Your task to perform on an android device: find photos in the google photos app Image 0: 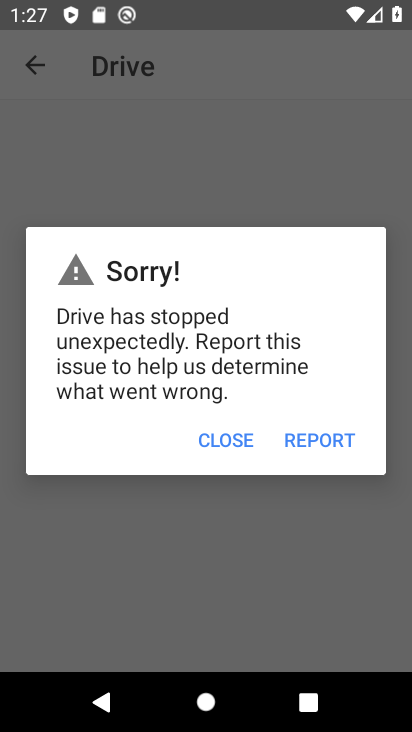
Step 0: press back button
Your task to perform on an android device: find photos in the google photos app Image 1: 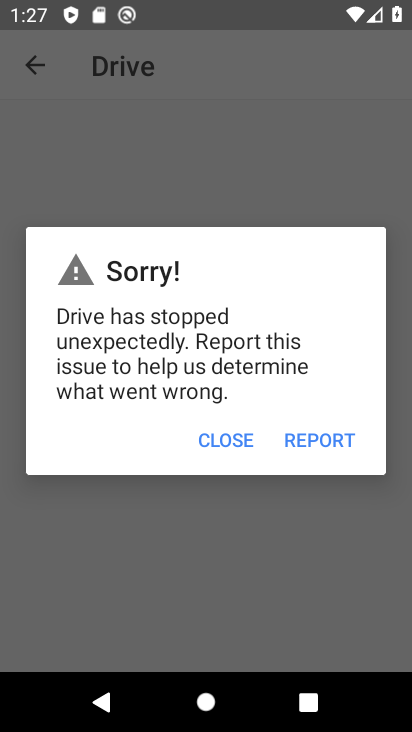
Step 1: press home button
Your task to perform on an android device: find photos in the google photos app Image 2: 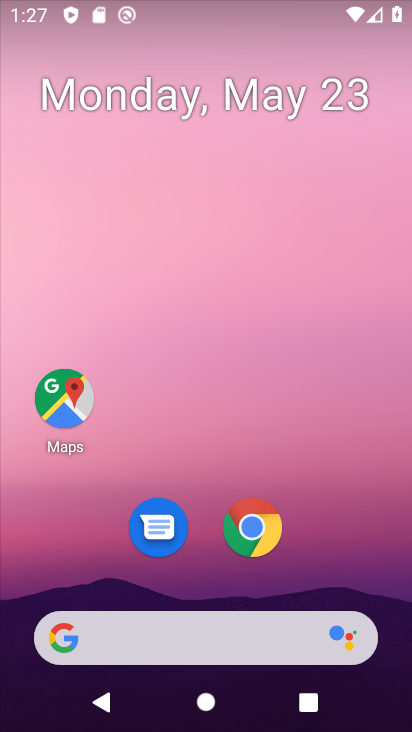
Step 2: drag from (183, 609) to (221, 1)
Your task to perform on an android device: find photos in the google photos app Image 3: 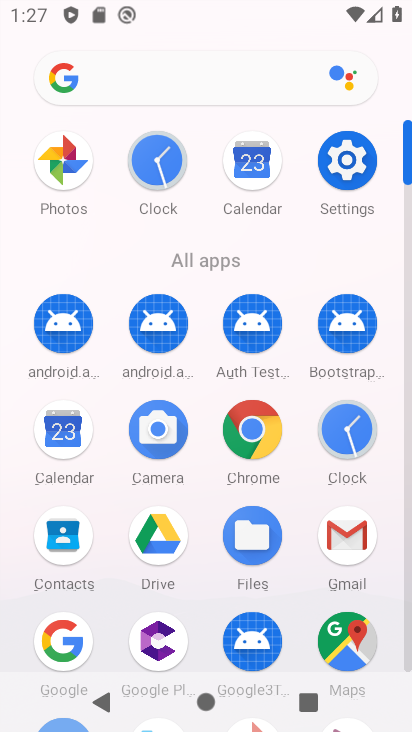
Step 3: drag from (184, 623) to (250, 130)
Your task to perform on an android device: find photos in the google photos app Image 4: 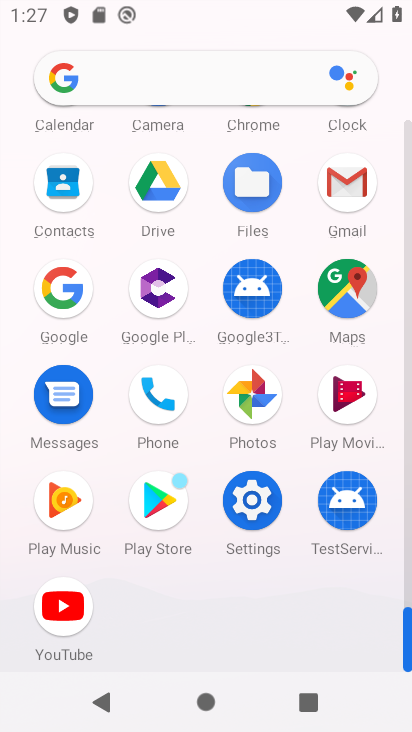
Step 4: click (248, 394)
Your task to perform on an android device: find photos in the google photos app Image 5: 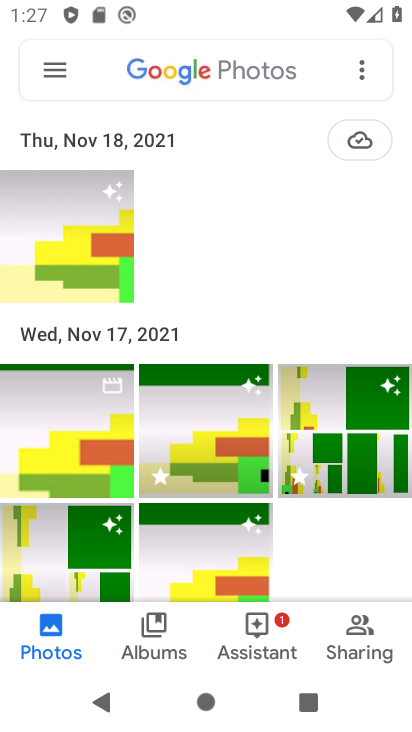
Step 5: task complete